Your task to perform on an android device: Check the news Image 0: 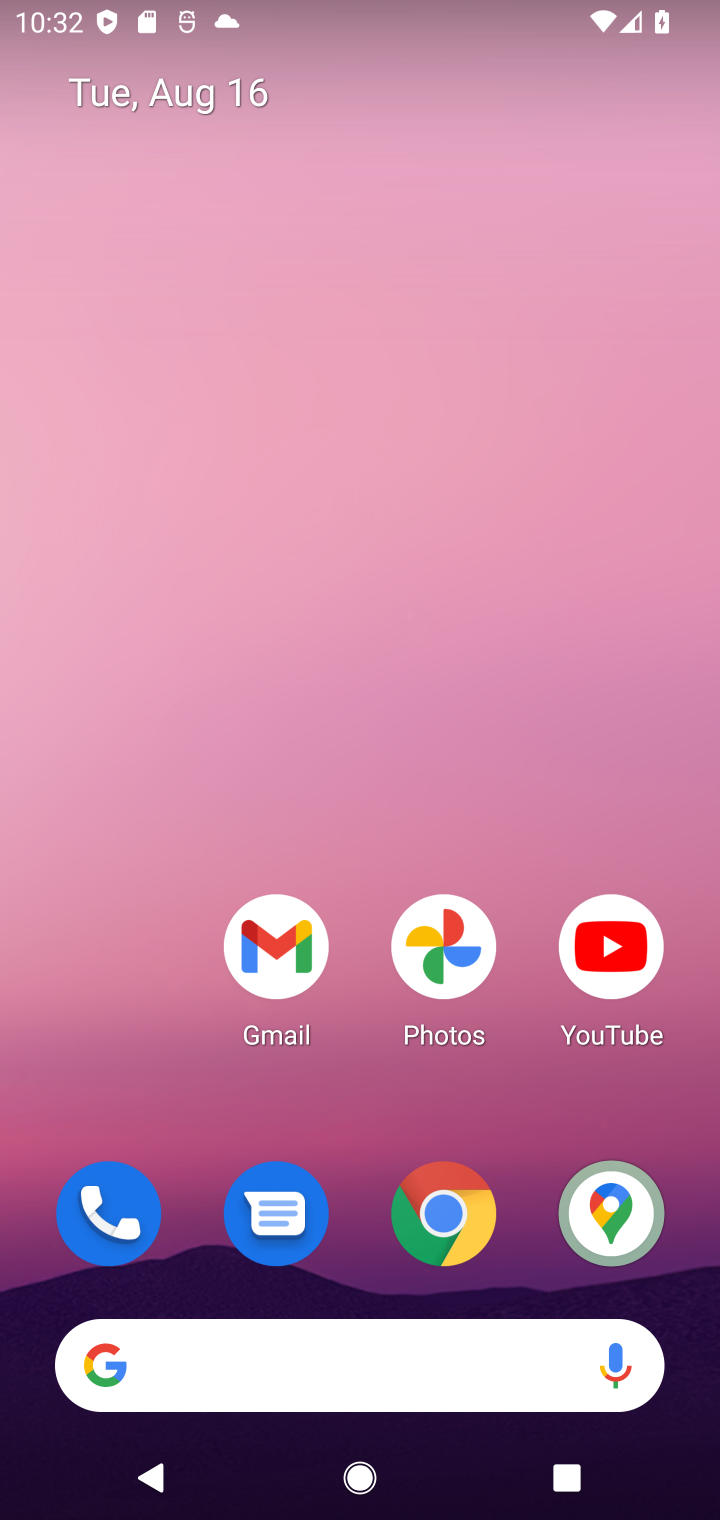
Step 0: drag from (302, 1307) to (277, 756)
Your task to perform on an android device: Check the news Image 1: 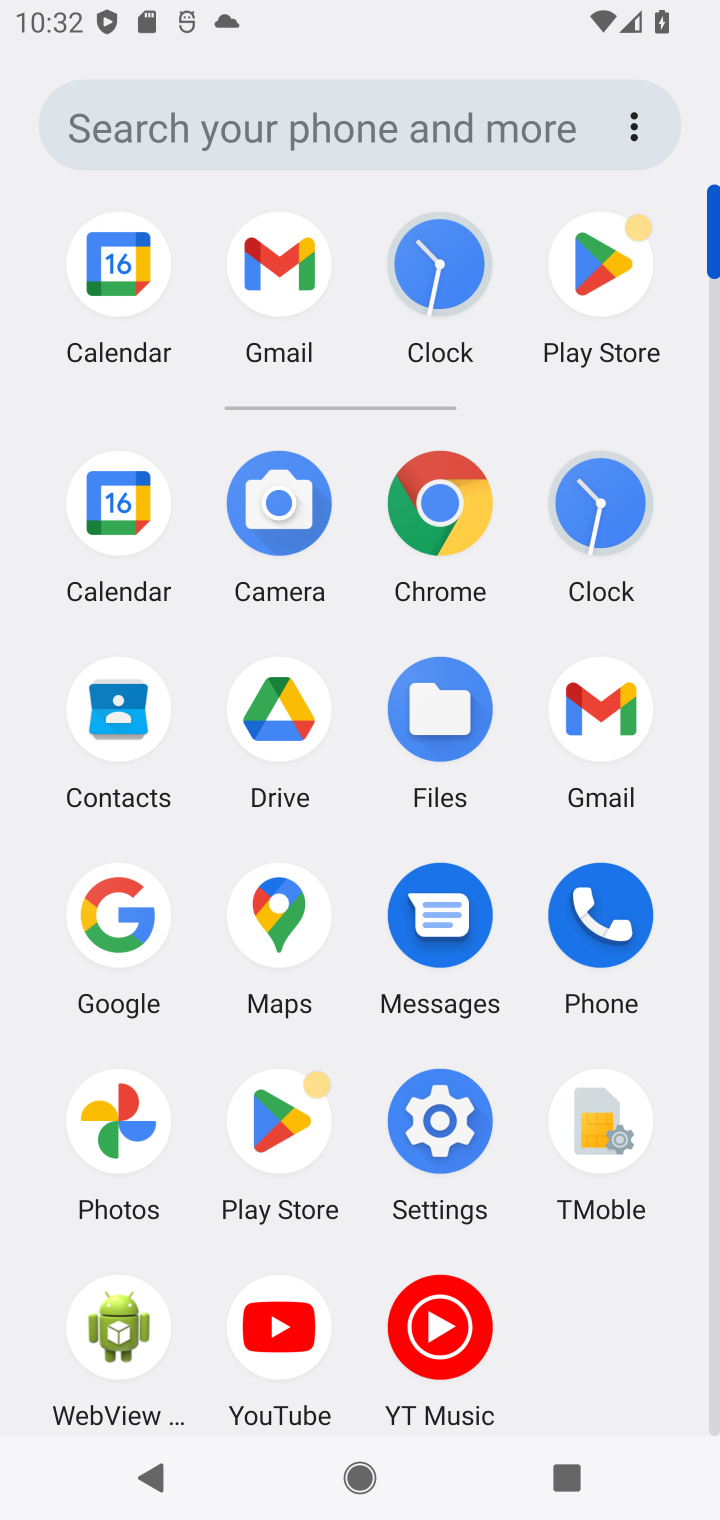
Step 1: click (466, 480)
Your task to perform on an android device: Check the news Image 2: 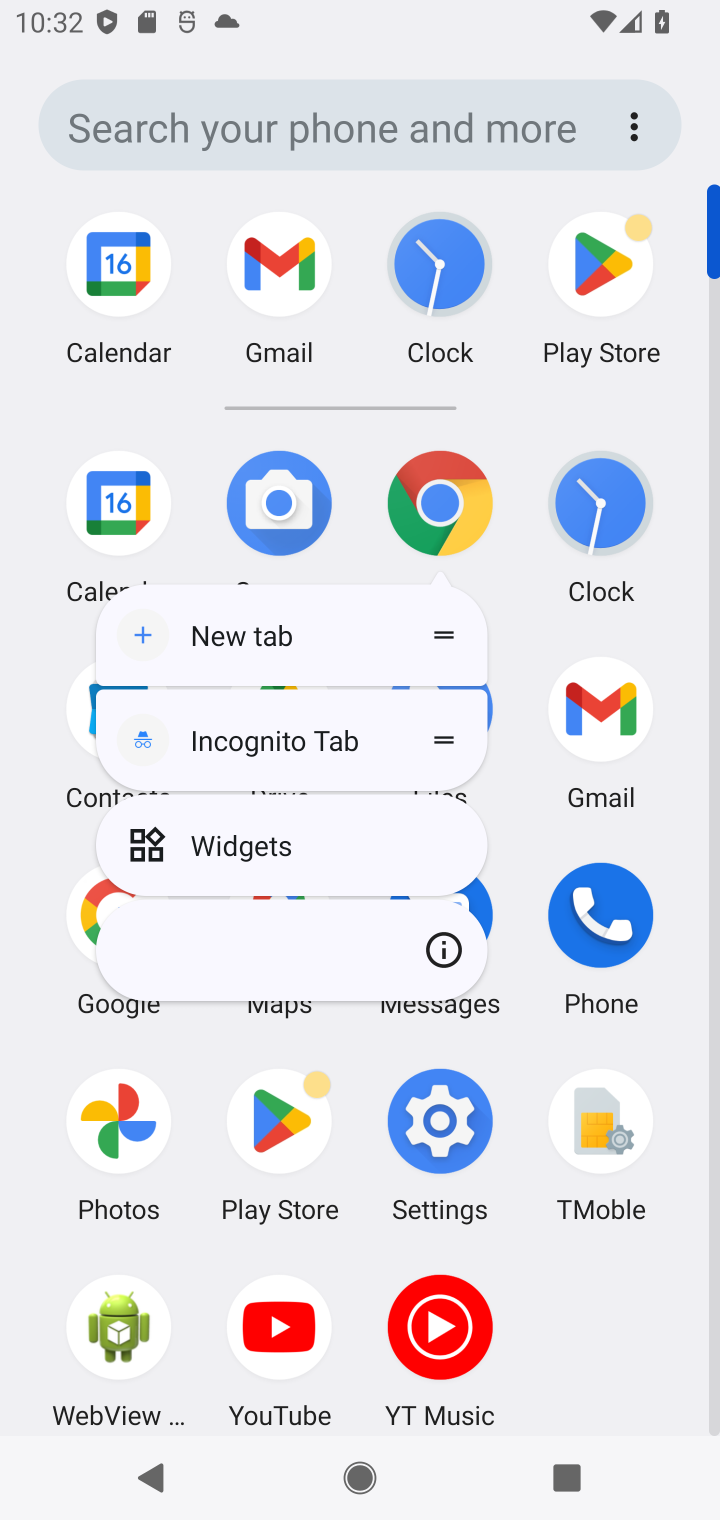
Step 2: click (455, 484)
Your task to perform on an android device: Check the news Image 3: 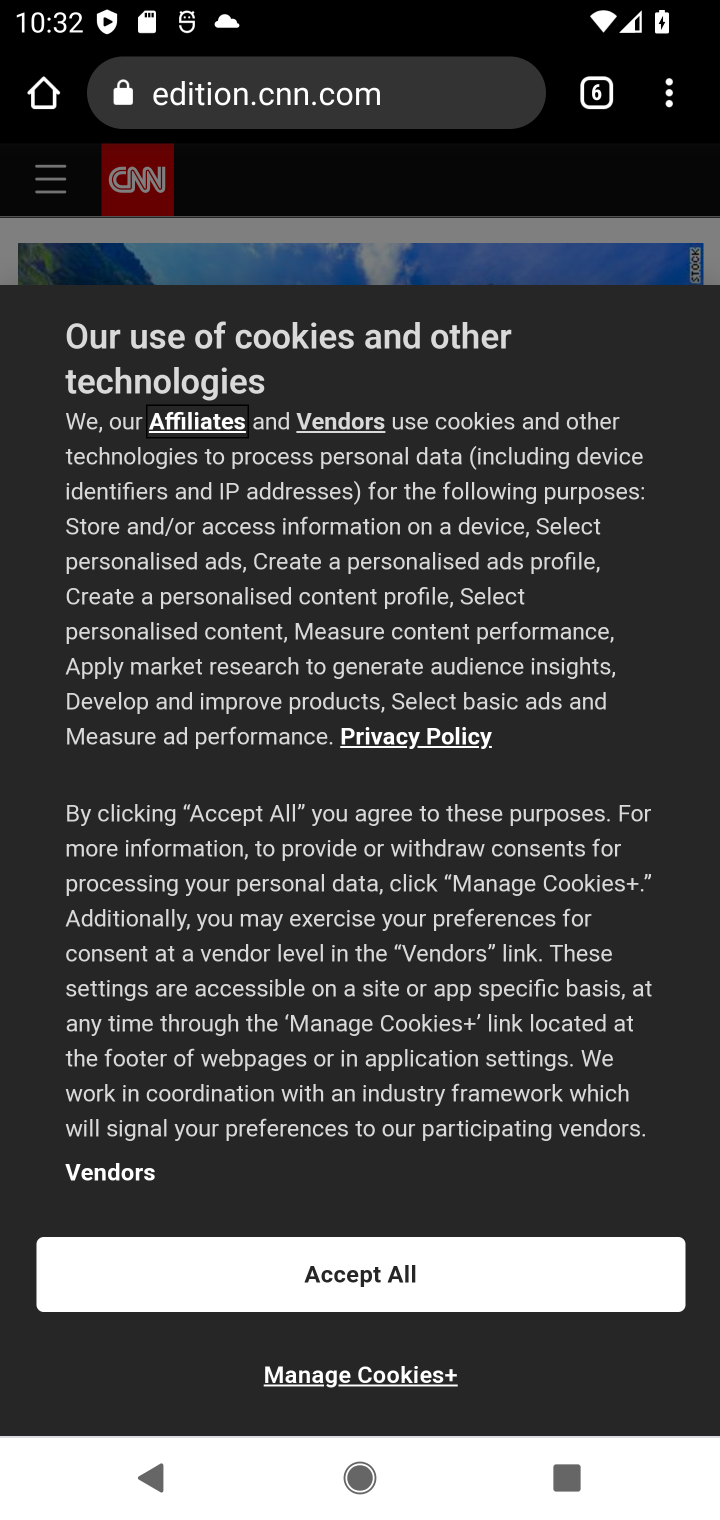
Step 3: click (668, 104)
Your task to perform on an android device: Check the news Image 4: 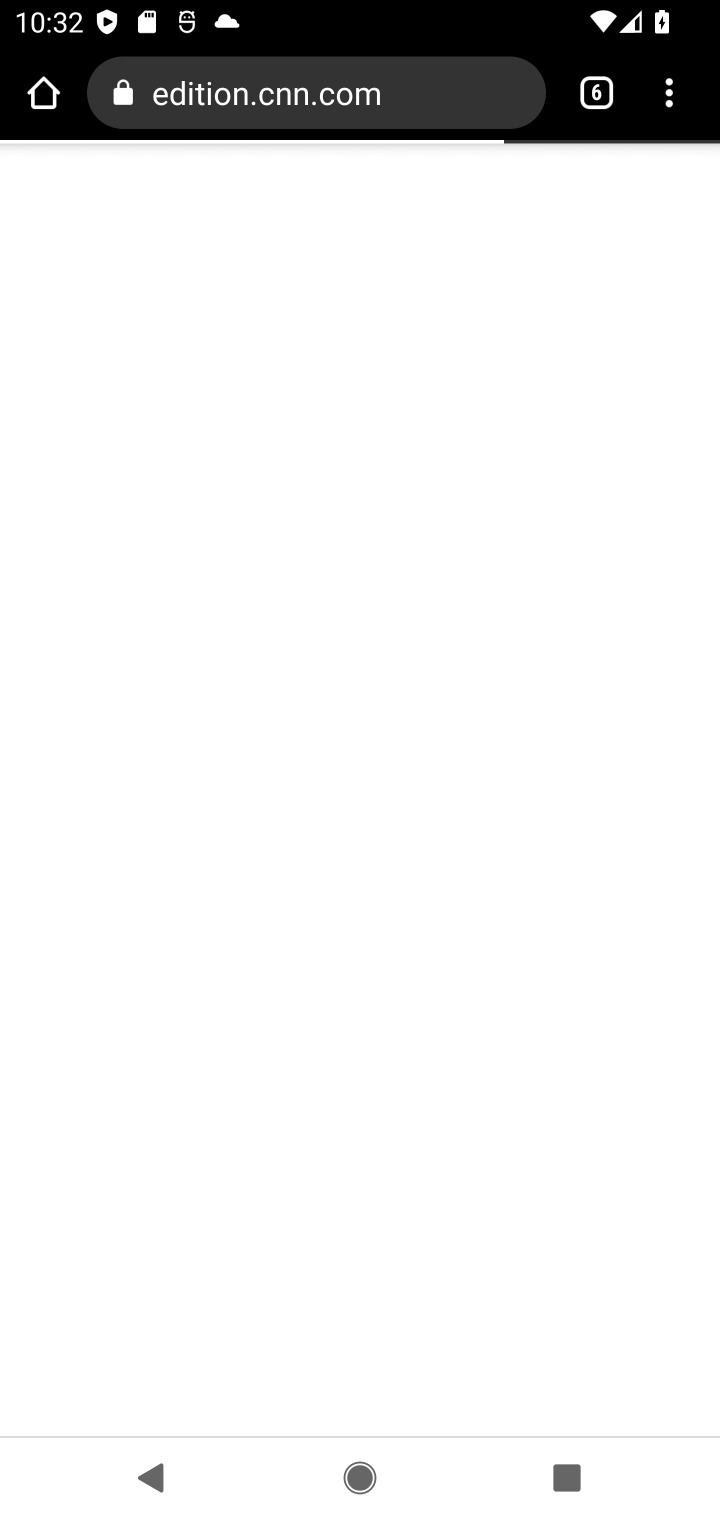
Step 4: click (692, 82)
Your task to perform on an android device: Check the news Image 5: 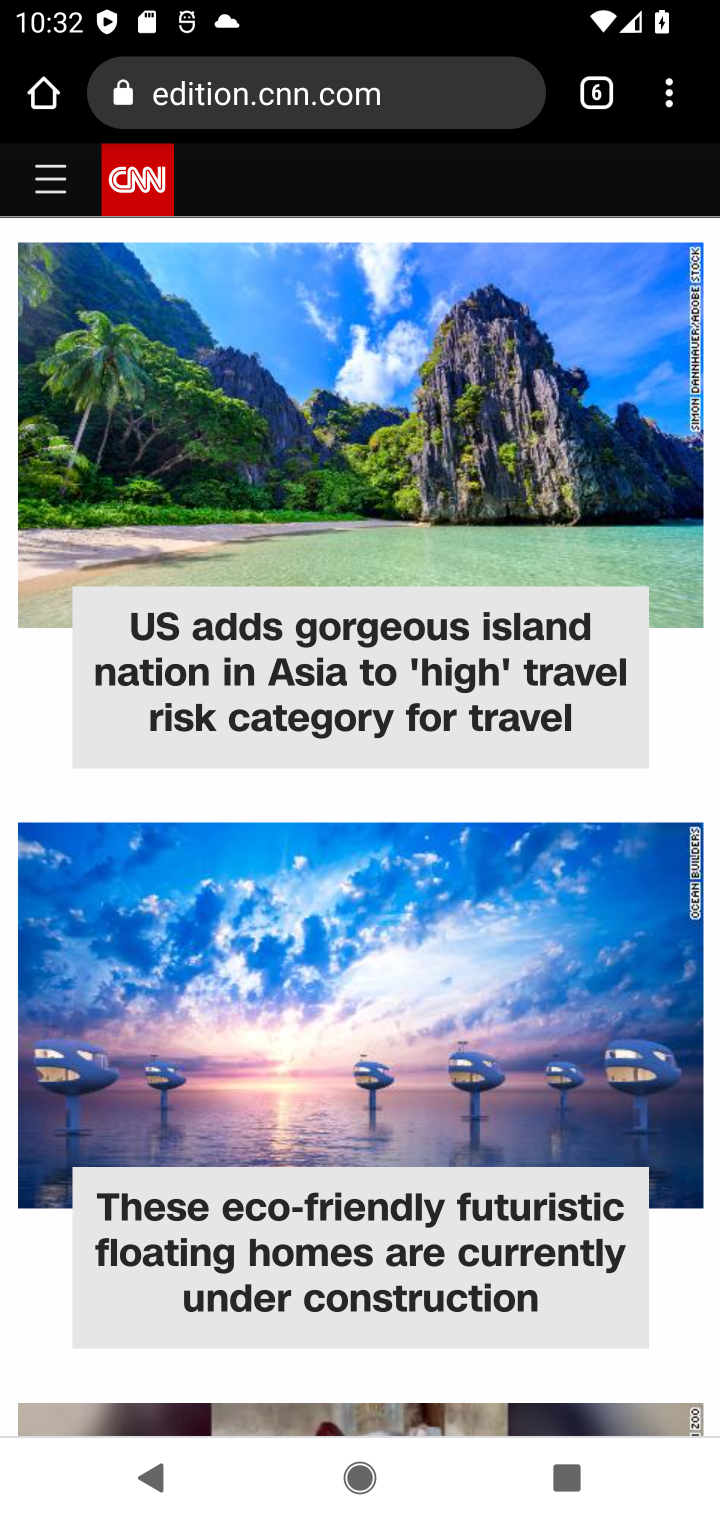
Step 5: click (623, 34)
Your task to perform on an android device: Check the news Image 6: 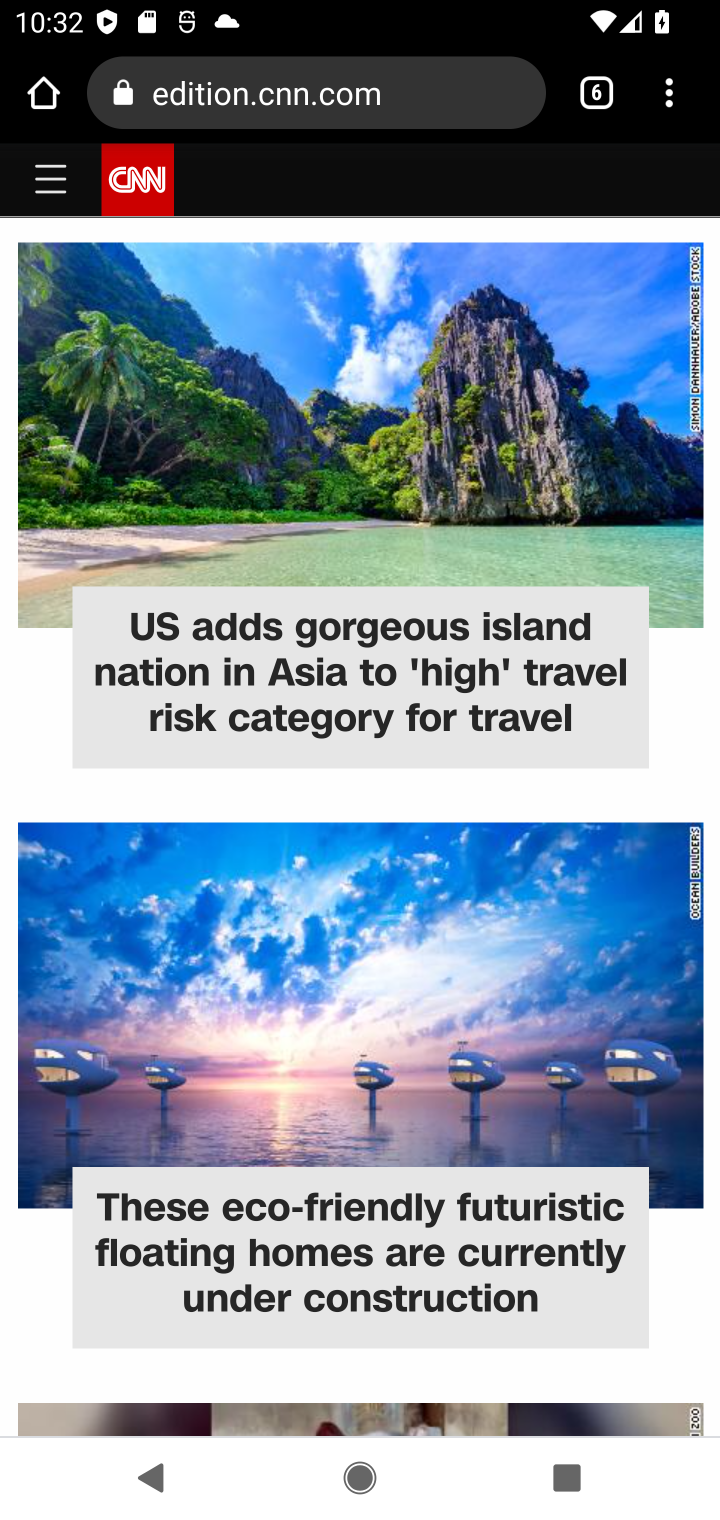
Step 6: click (689, 106)
Your task to perform on an android device: Check the news Image 7: 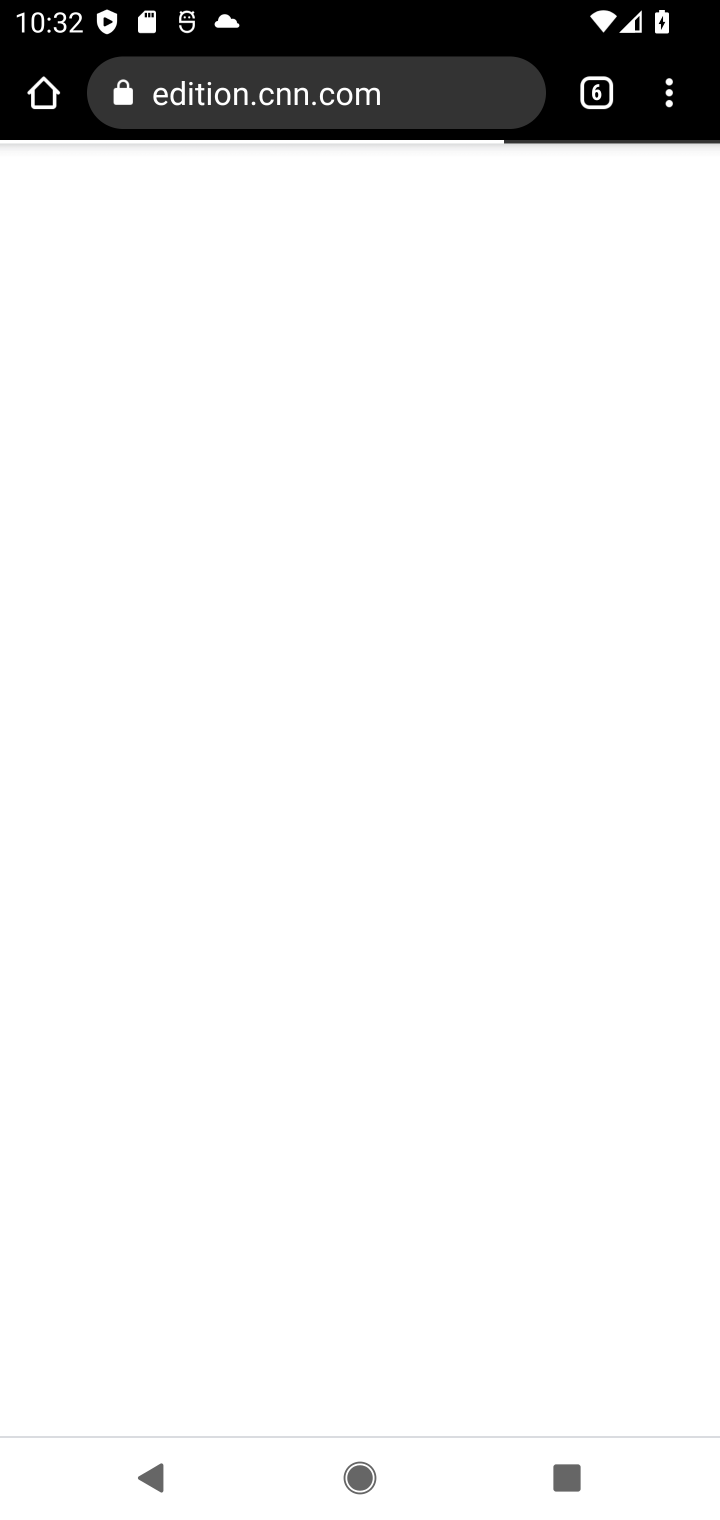
Step 7: click (685, 92)
Your task to perform on an android device: Check the news Image 8: 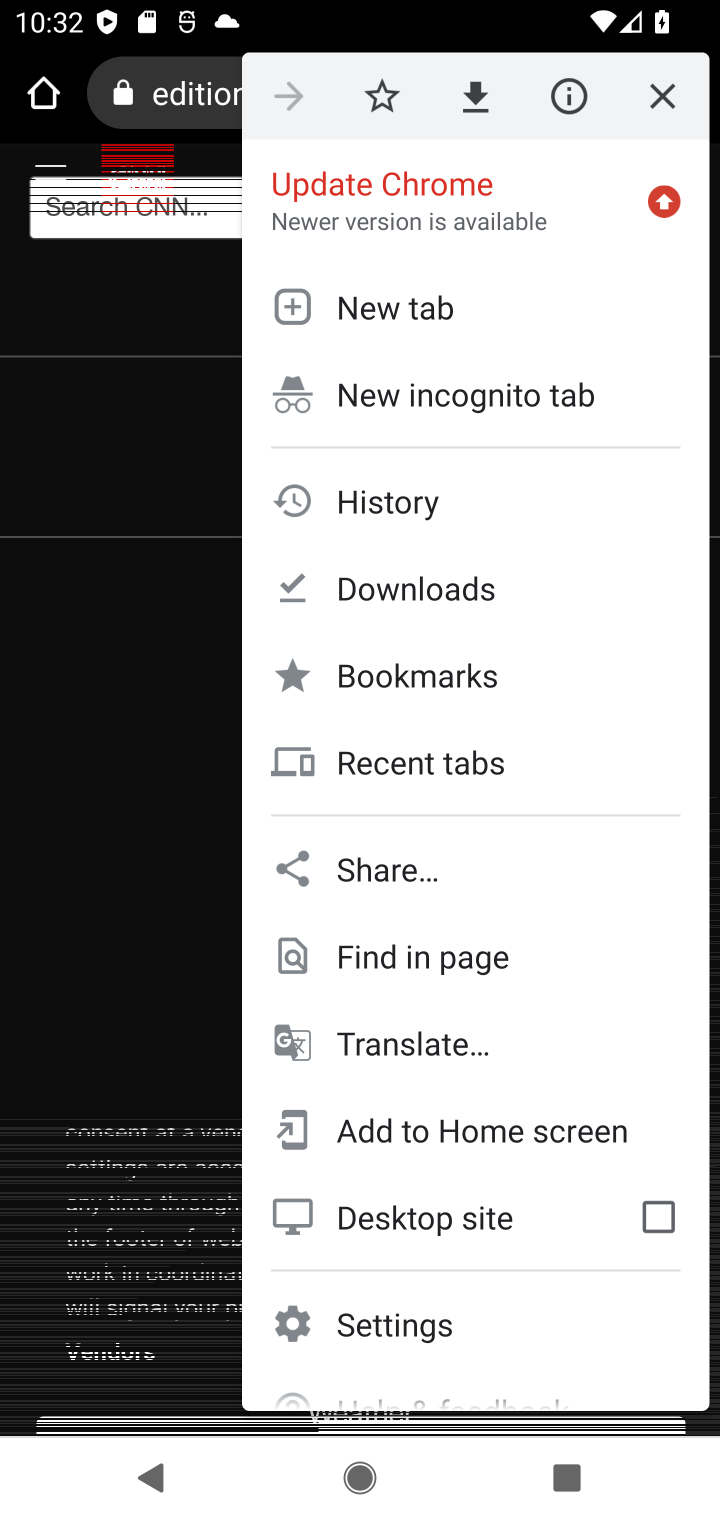
Step 8: click (378, 307)
Your task to perform on an android device: Check the news Image 9: 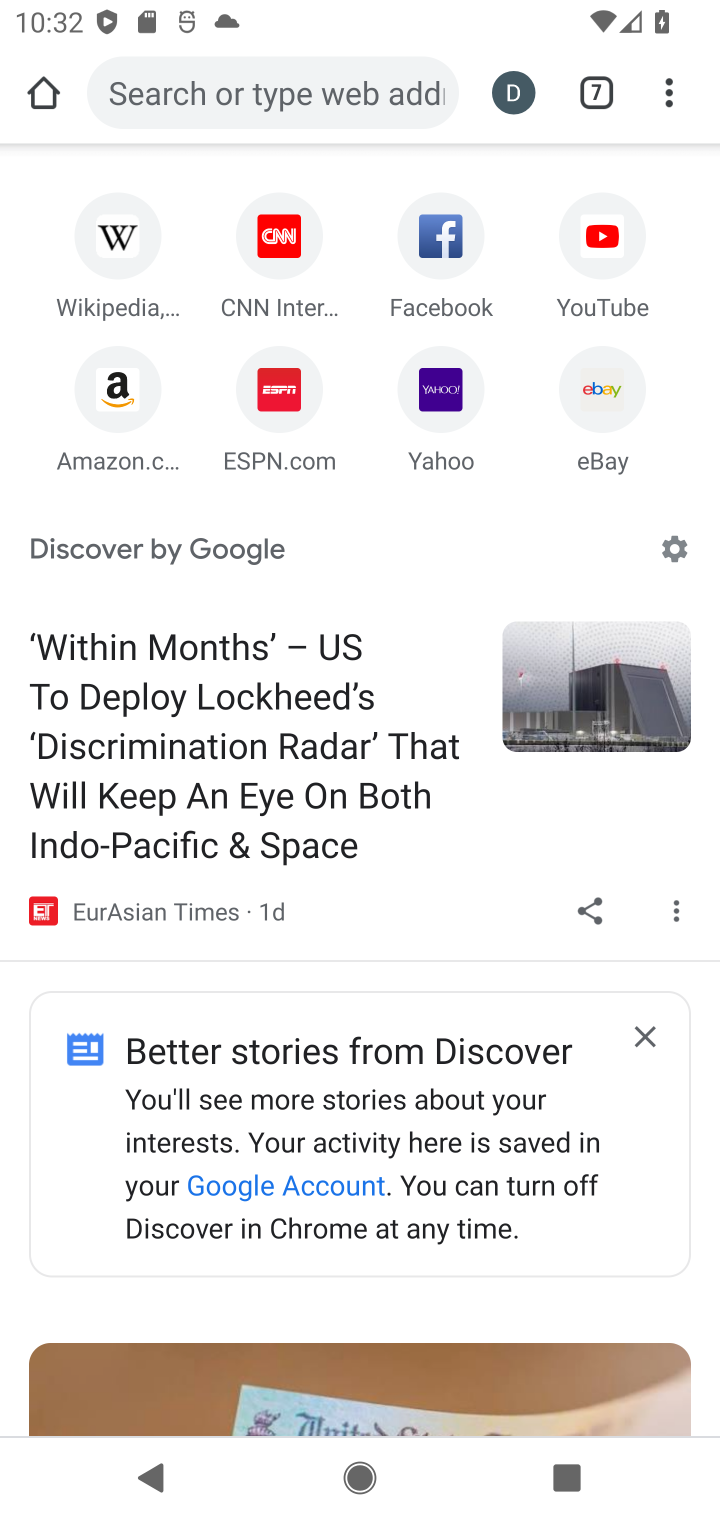
Step 9: click (300, 86)
Your task to perform on an android device: Check the news Image 10: 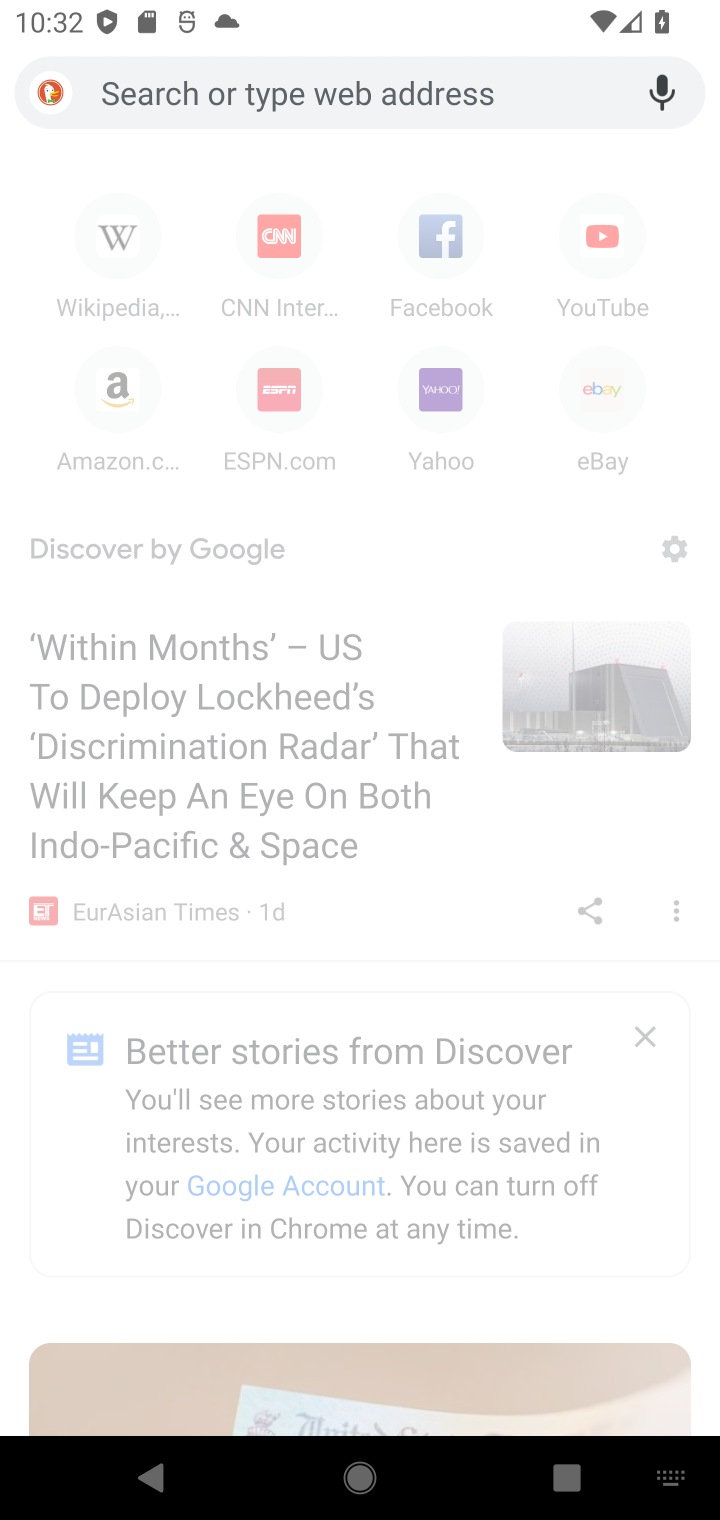
Step 10: type "Check the news "
Your task to perform on an android device: Check the news Image 11: 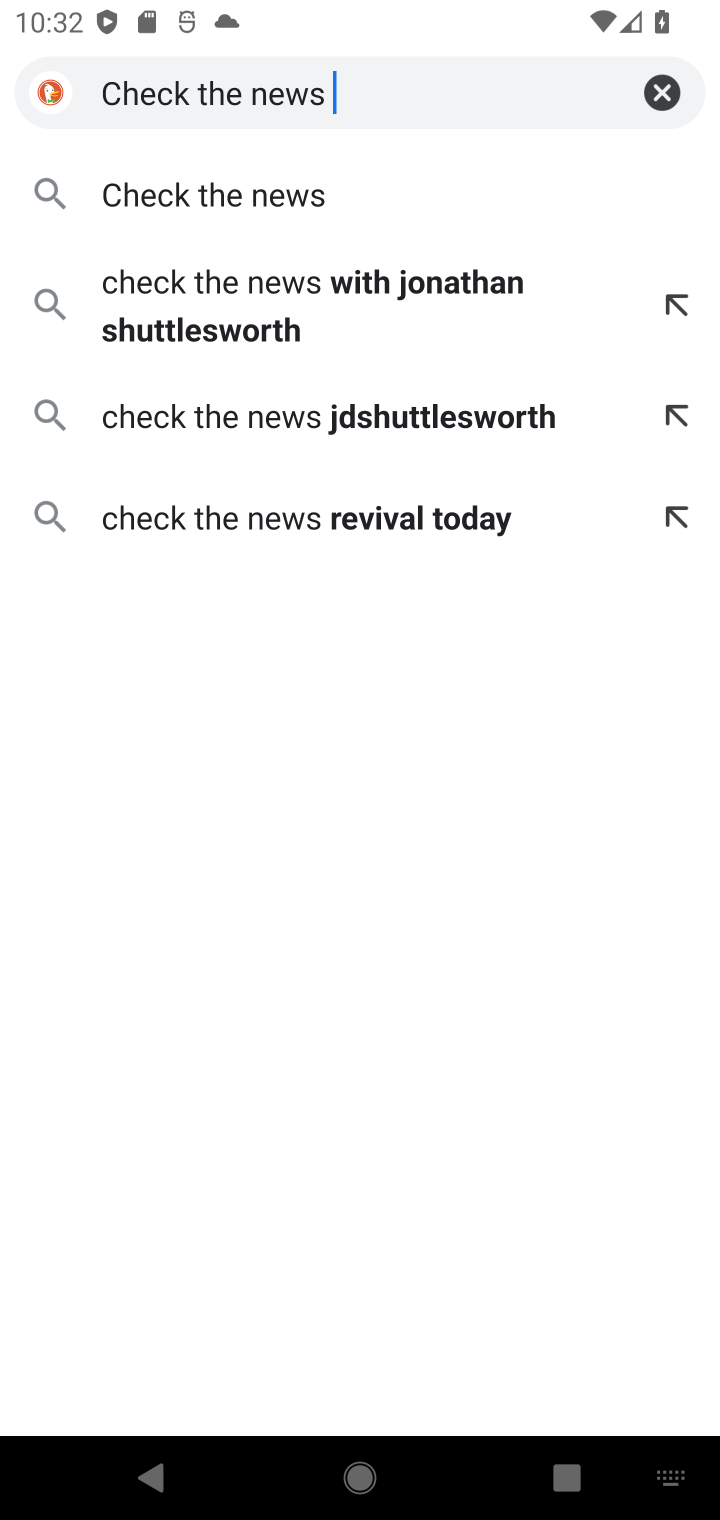
Step 11: click (288, 197)
Your task to perform on an android device: Check the news Image 12: 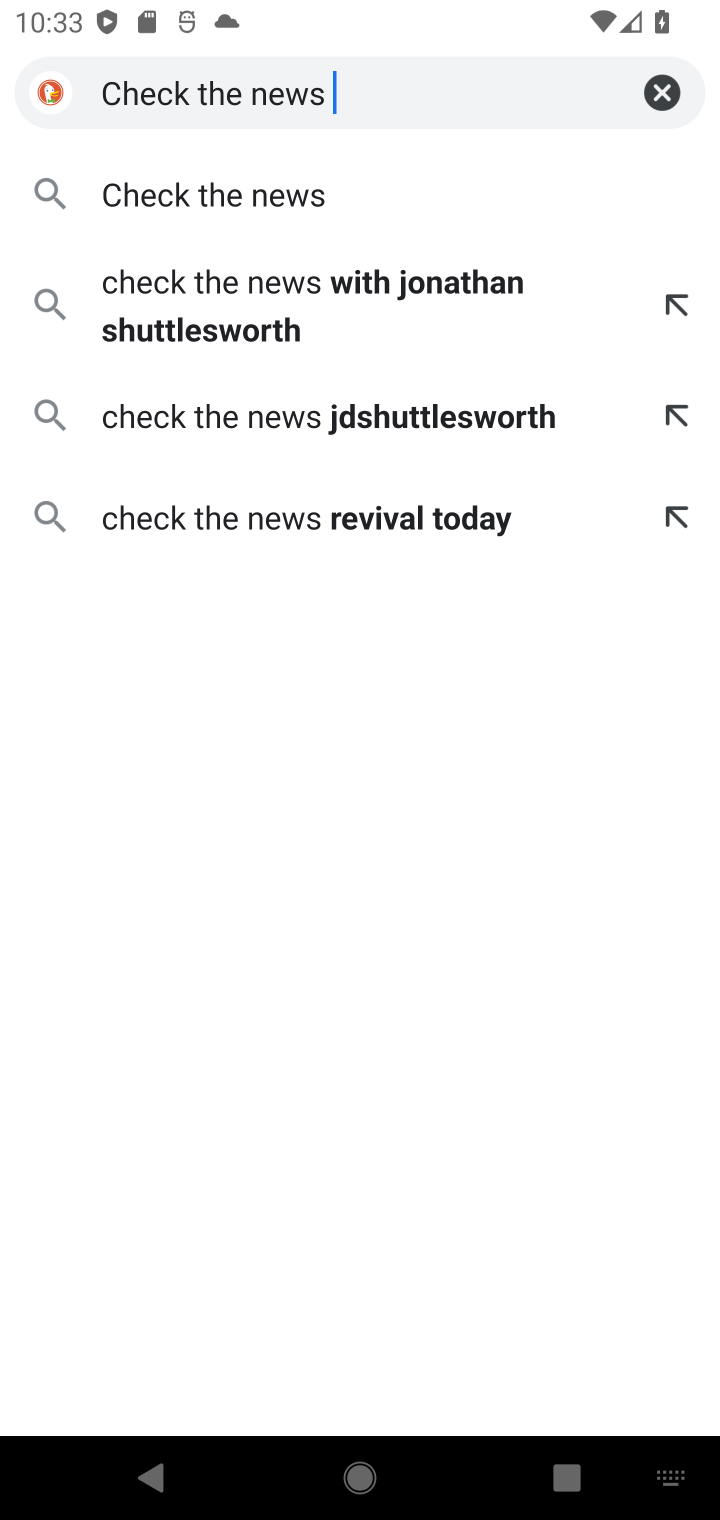
Step 12: click (296, 170)
Your task to perform on an android device: Check the news Image 13: 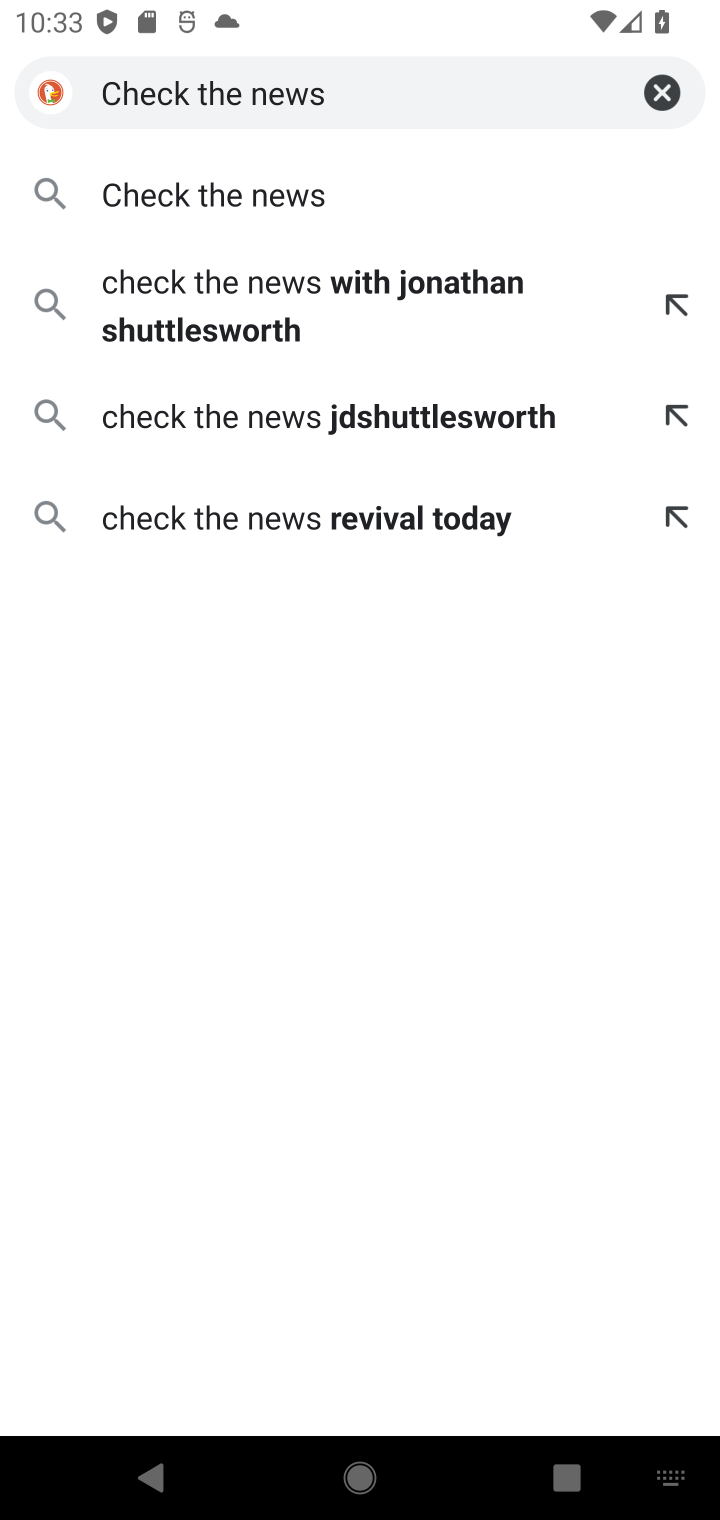
Step 13: click (260, 199)
Your task to perform on an android device: Check the news Image 14: 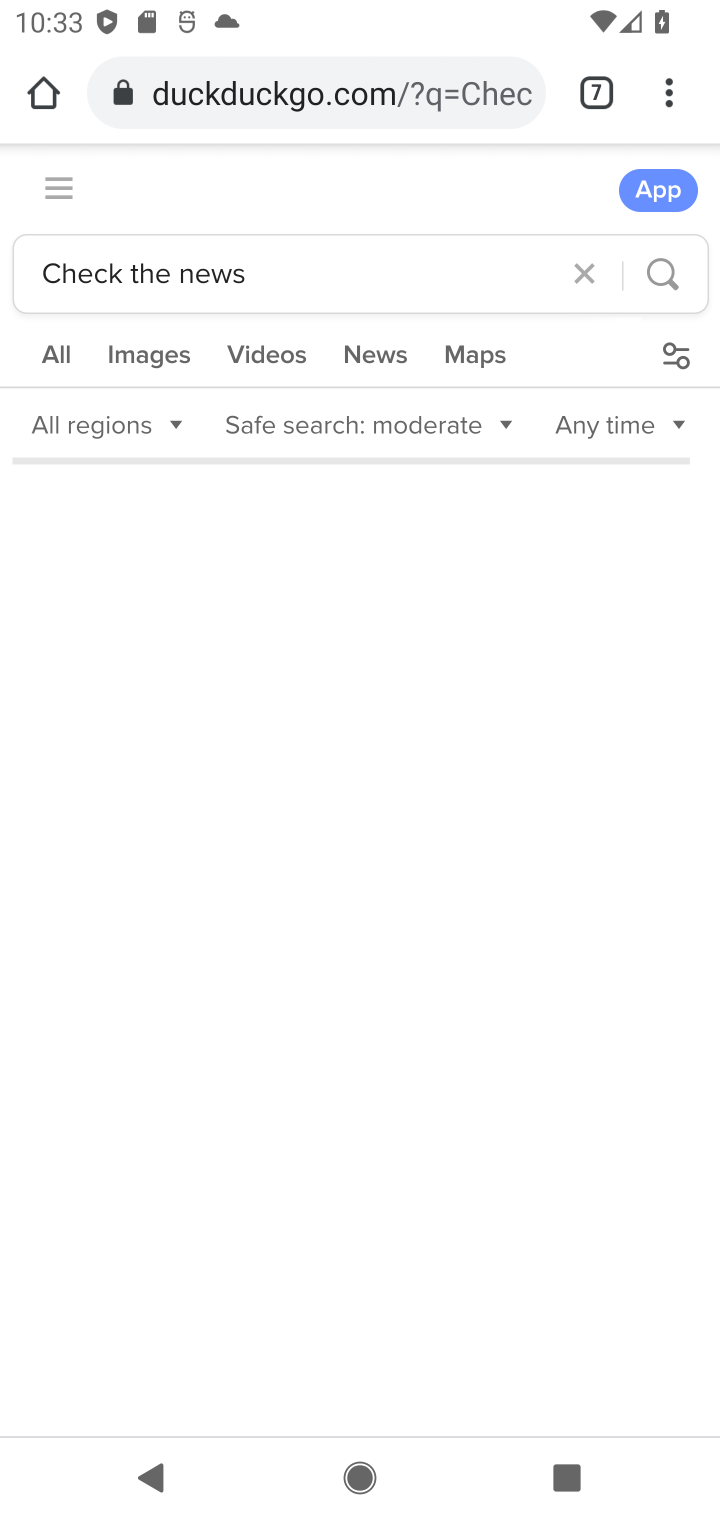
Step 14: task complete